Your task to perform on an android device: check battery use Image 0: 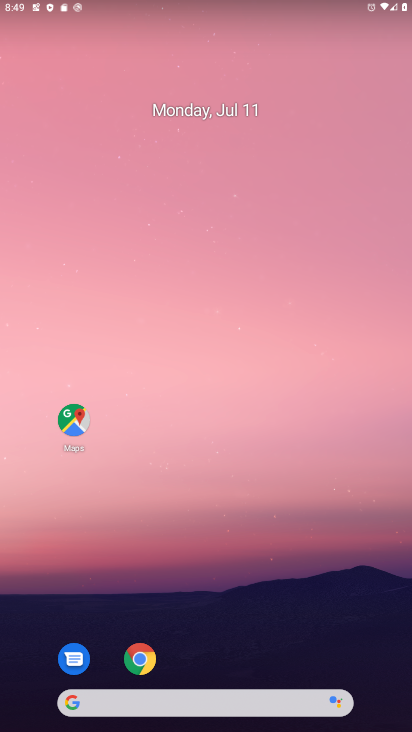
Step 0: drag from (265, 588) to (184, 184)
Your task to perform on an android device: check battery use Image 1: 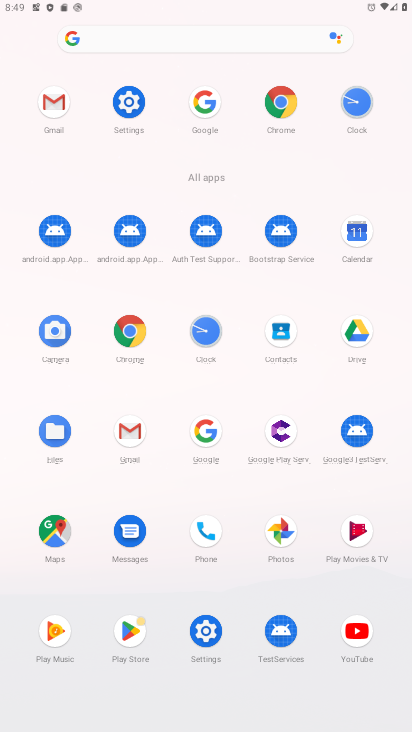
Step 1: click (128, 99)
Your task to perform on an android device: check battery use Image 2: 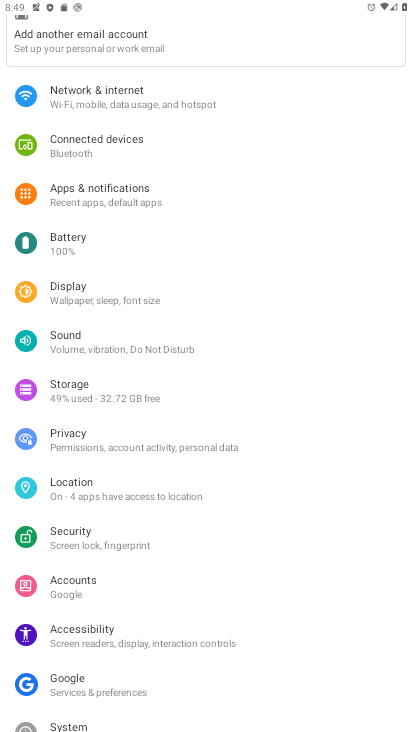
Step 2: click (62, 240)
Your task to perform on an android device: check battery use Image 3: 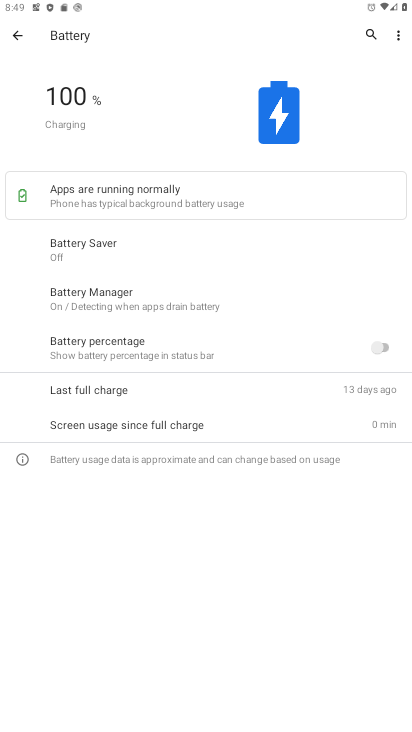
Step 3: task complete